Your task to perform on an android device: turn off wifi Image 0: 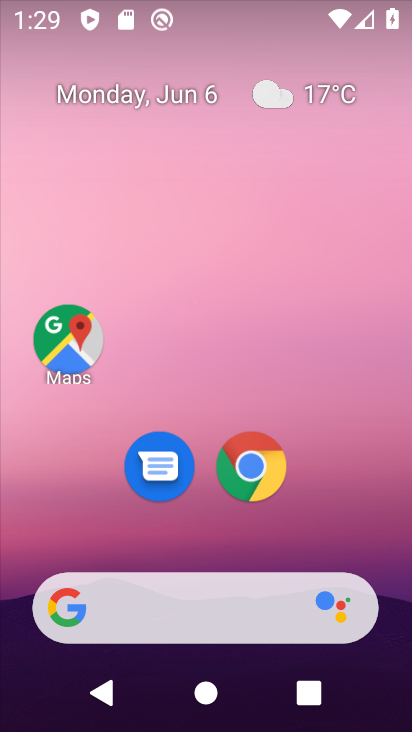
Step 0: press home button
Your task to perform on an android device: turn off wifi Image 1: 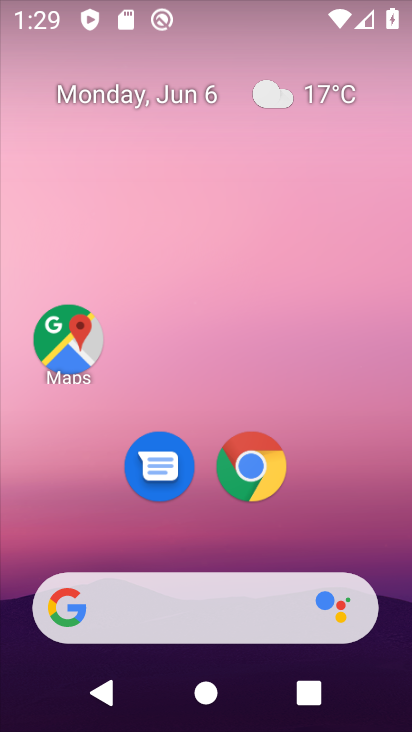
Step 1: drag from (341, 437) to (327, 98)
Your task to perform on an android device: turn off wifi Image 2: 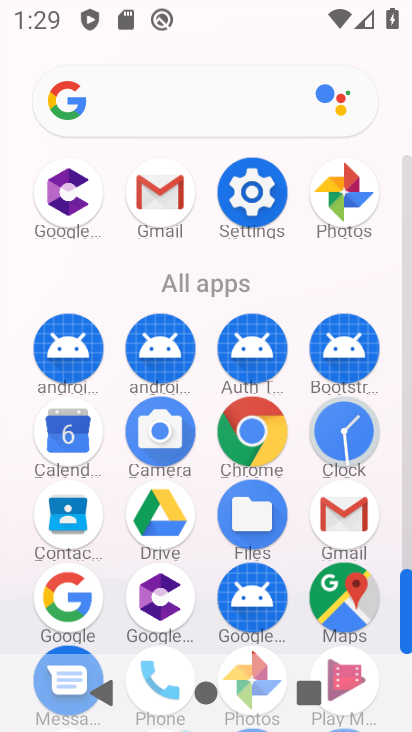
Step 2: click (258, 200)
Your task to perform on an android device: turn off wifi Image 3: 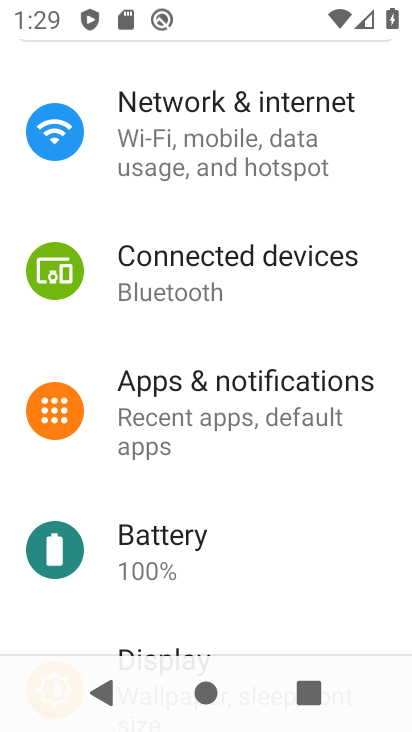
Step 3: click (351, 127)
Your task to perform on an android device: turn off wifi Image 4: 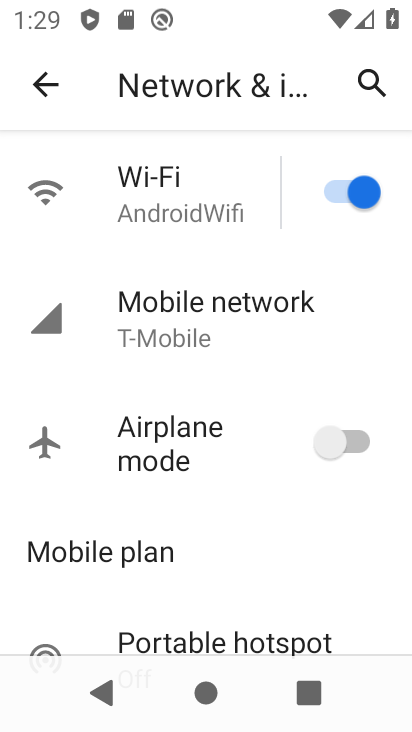
Step 4: click (152, 202)
Your task to perform on an android device: turn off wifi Image 5: 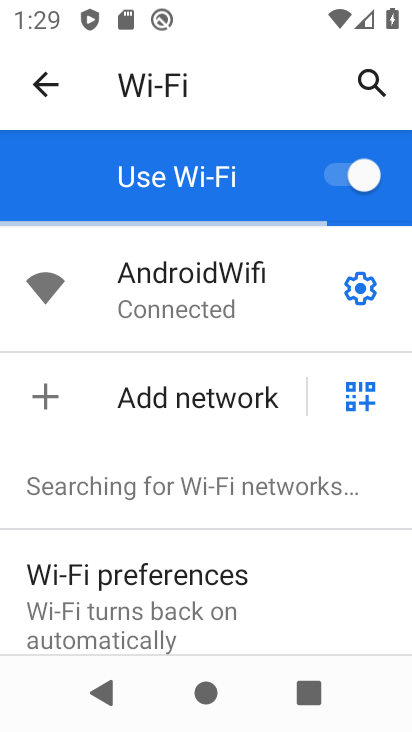
Step 5: click (355, 164)
Your task to perform on an android device: turn off wifi Image 6: 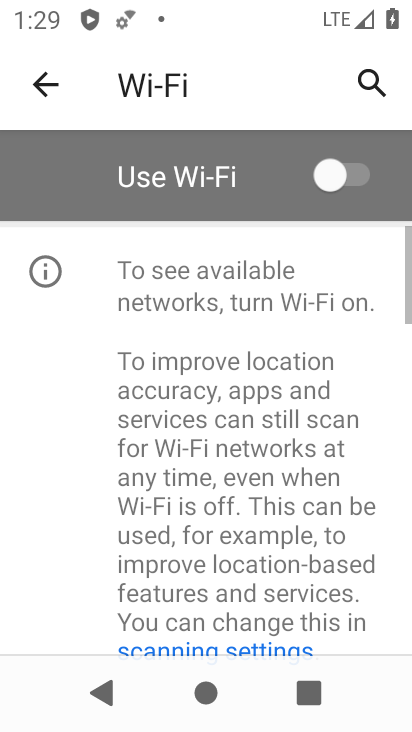
Step 6: task complete